Your task to perform on an android device: Open settings Image 0: 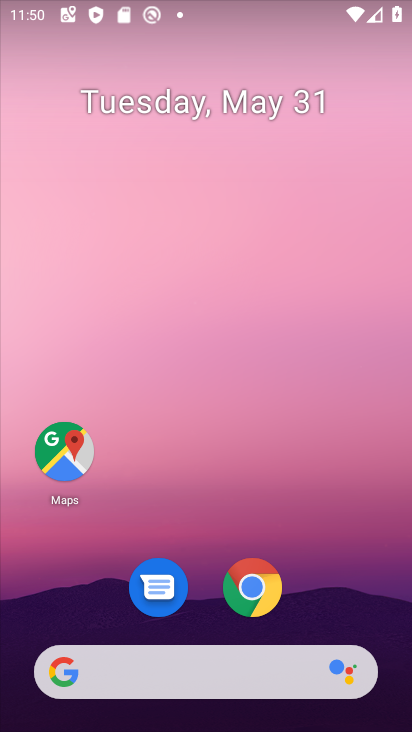
Step 0: drag from (320, 601) to (301, 98)
Your task to perform on an android device: Open settings Image 1: 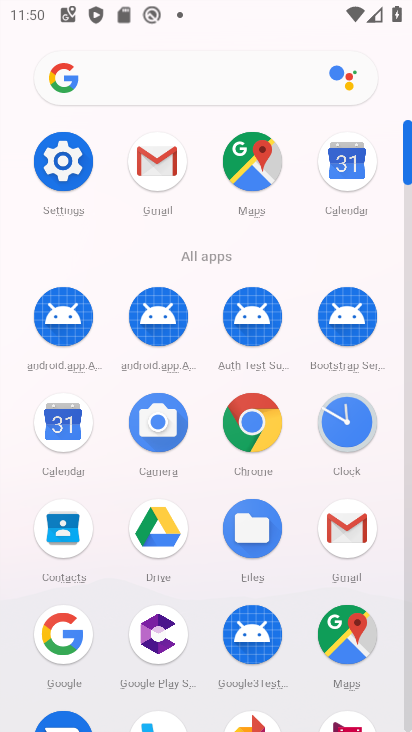
Step 1: click (70, 159)
Your task to perform on an android device: Open settings Image 2: 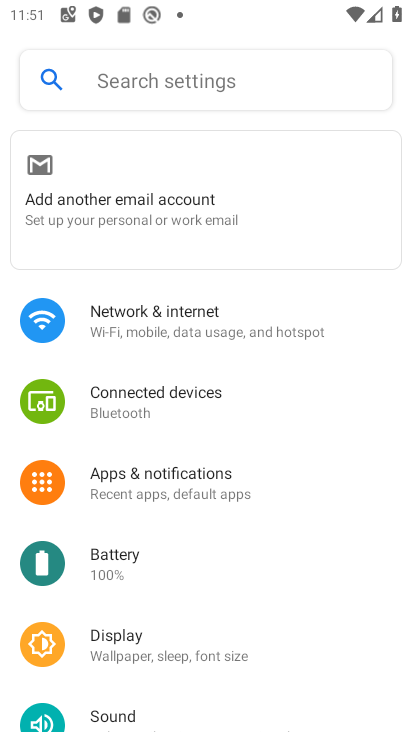
Step 2: task complete